Your task to perform on an android device: Open sound settings Image 0: 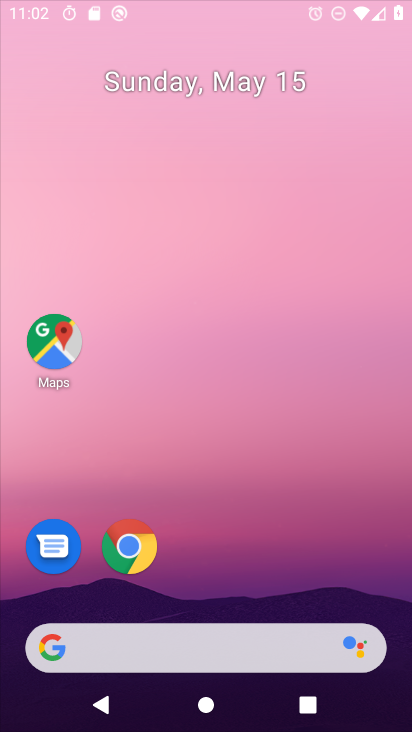
Step 0: click (299, 89)
Your task to perform on an android device: Open sound settings Image 1: 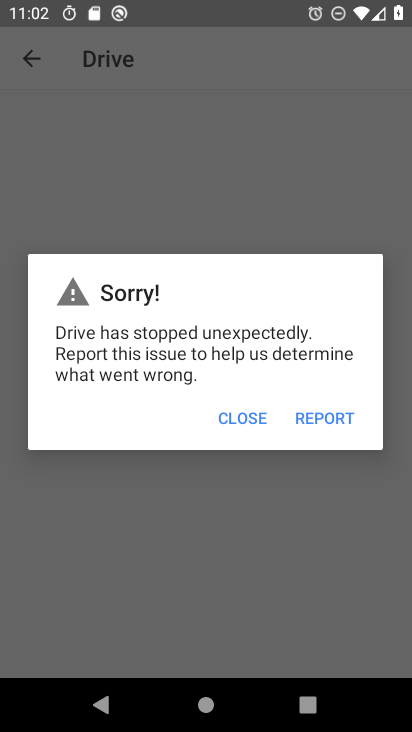
Step 1: press home button
Your task to perform on an android device: Open sound settings Image 2: 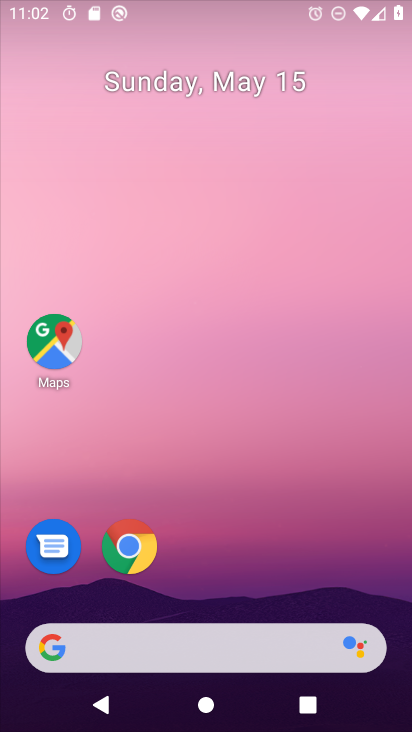
Step 2: drag from (278, 551) to (316, 131)
Your task to perform on an android device: Open sound settings Image 3: 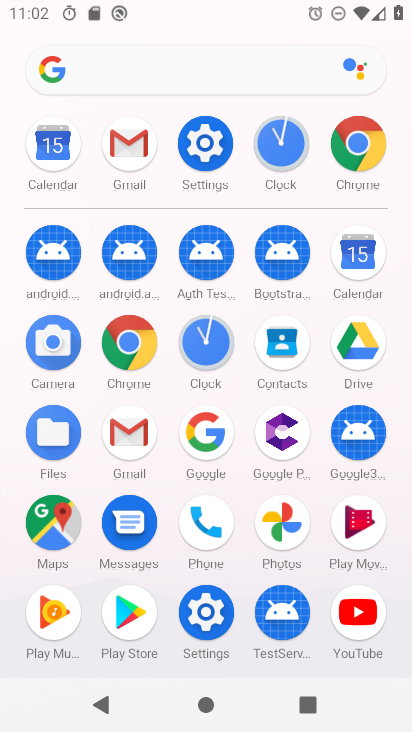
Step 3: click (221, 154)
Your task to perform on an android device: Open sound settings Image 4: 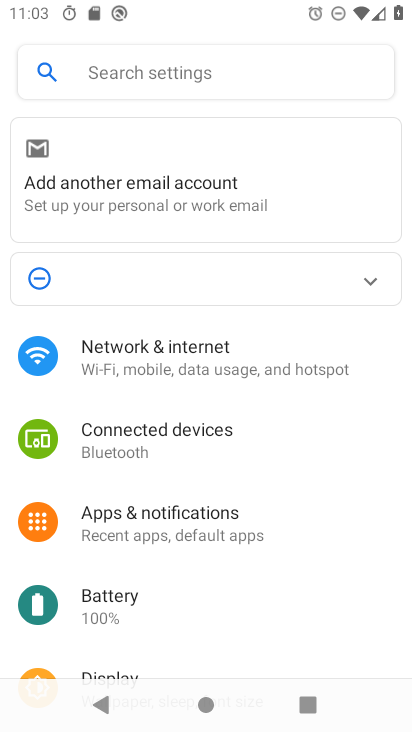
Step 4: drag from (258, 522) to (301, 175)
Your task to perform on an android device: Open sound settings Image 5: 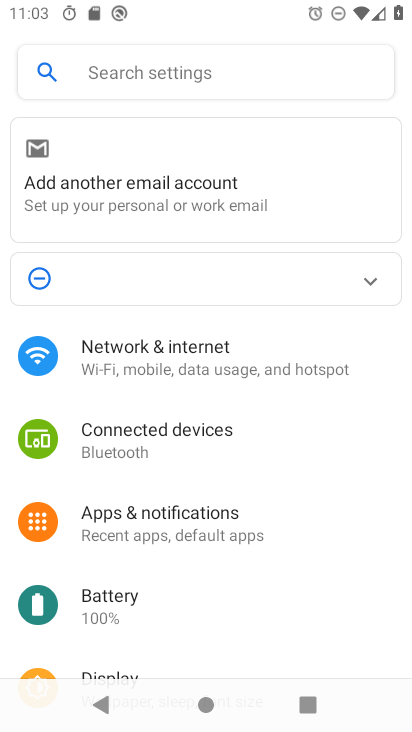
Step 5: drag from (284, 598) to (291, 163)
Your task to perform on an android device: Open sound settings Image 6: 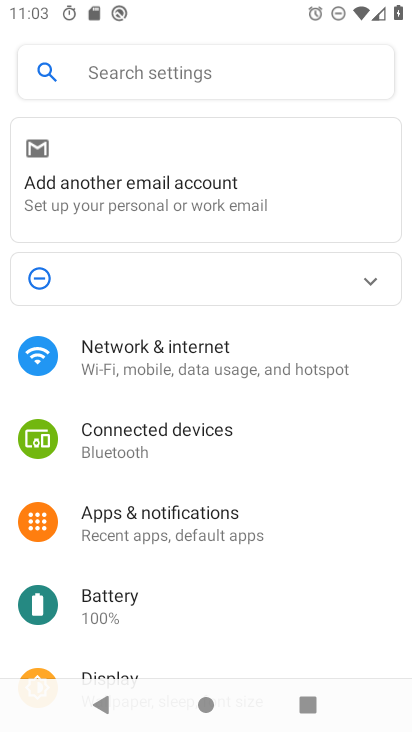
Step 6: drag from (246, 624) to (272, 224)
Your task to perform on an android device: Open sound settings Image 7: 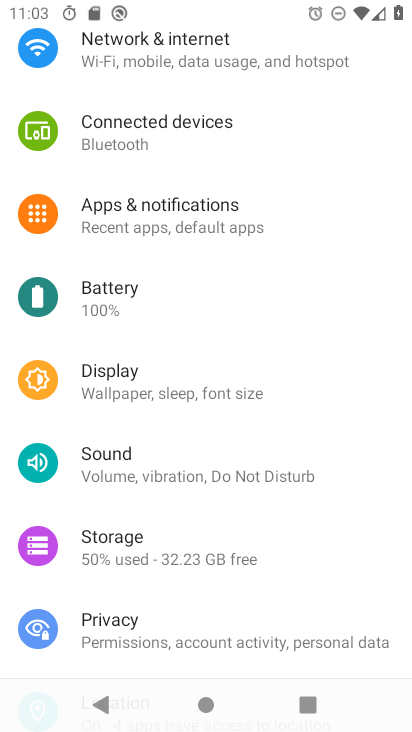
Step 7: click (119, 456)
Your task to perform on an android device: Open sound settings Image 8: 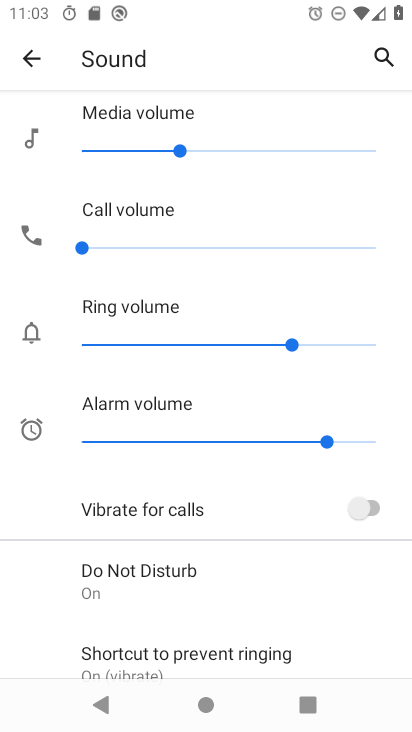
Step 8: task complete